Your task to perform on an android device: turn on priority inbox in the gmail app Image 0: 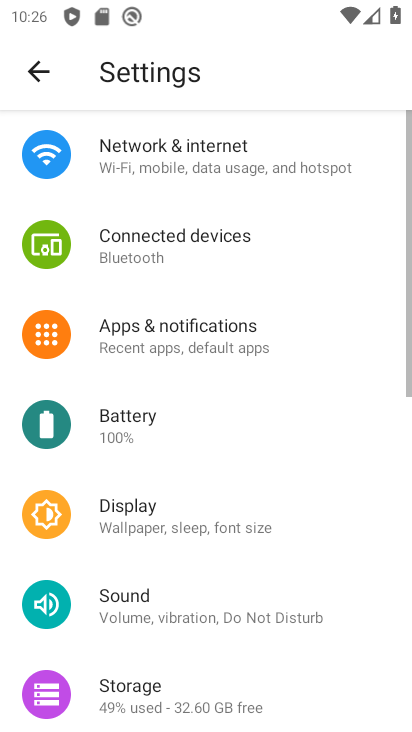
Step 0: click (309, 375)
Your task to perform on an android device: turn on priority inbox in the gmail app Image 1: 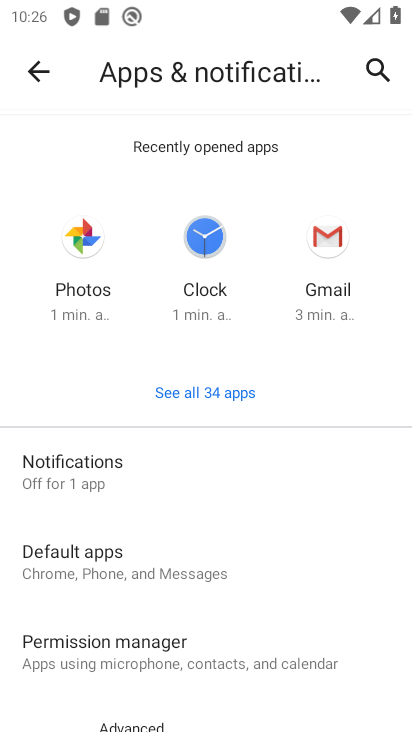
Step 1: press home button
Your task to perform on an android device: turn on priority inbox in the gmail app Image 2: 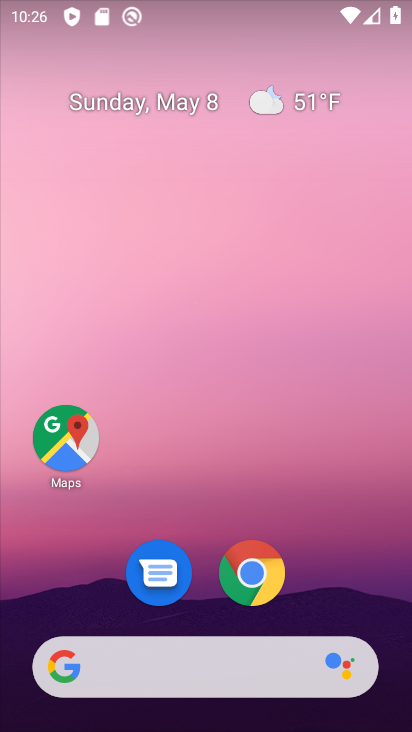
Step 2: drag from (146, 647) to (212, 156)
Your task to perform on an android device: turn on priority inbox in the gmail app Image 3: 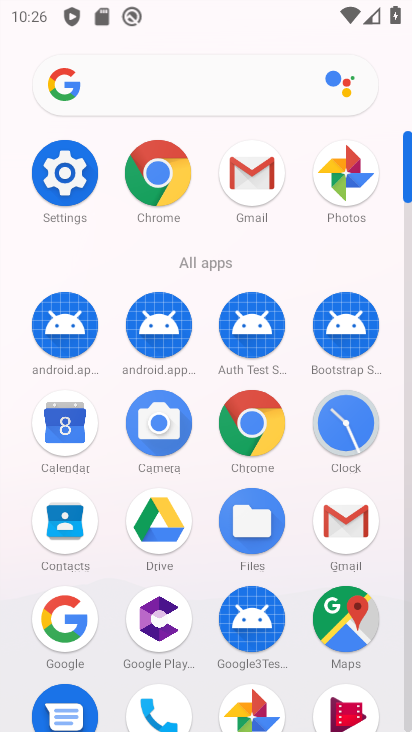
Step 3: click (266, 192)
Your task to perform on an android device: turn on priority inbox in the gmail app Image 4: 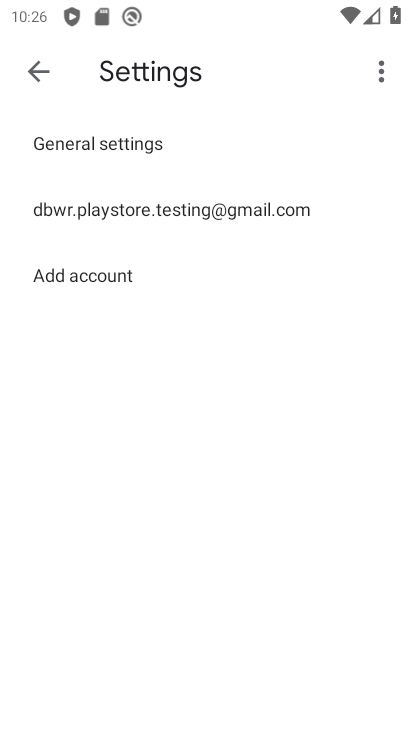
Step 4: click (138, 214)
Your task to perform on an android device: turn on priority inbox in the gmail app Image 5: 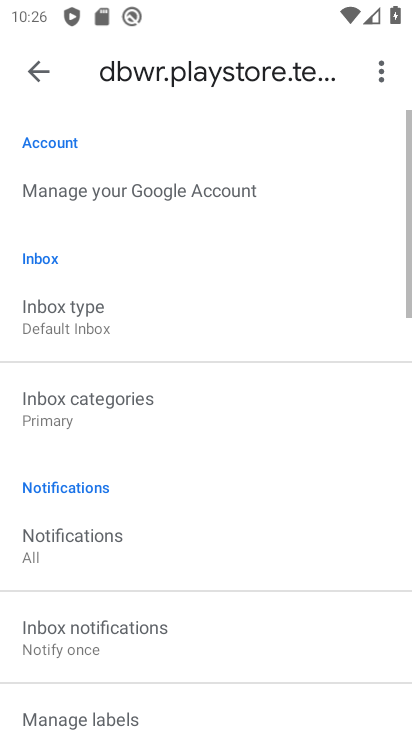
Step 5: click (56, 331)
Your task to perform on an android device: turn on priority inbox in the gmail app Image 6: 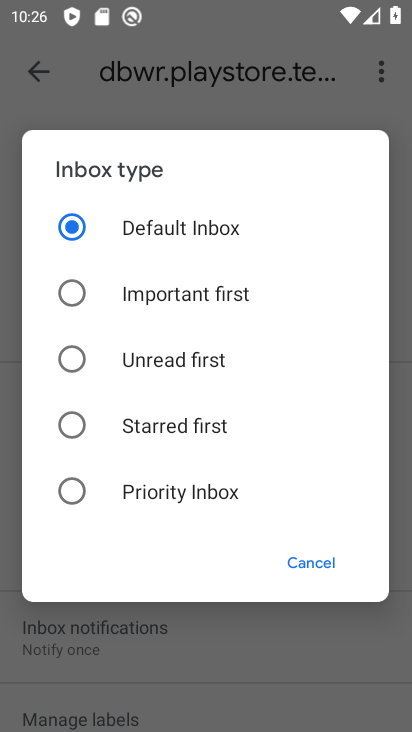
Step 6: click (64, 490)
Your task to perform on an android device: turn on priority inbox in the gmail app Image 7: 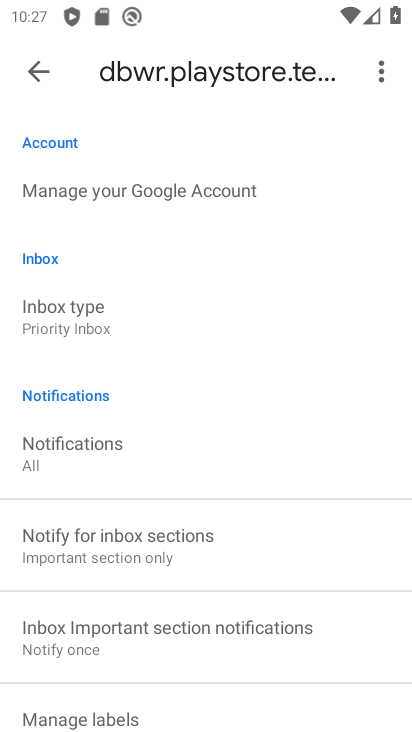
Step 7: task complete